Your task to perform on an android device: see tabs open on other devices in the chrome app Image 0: 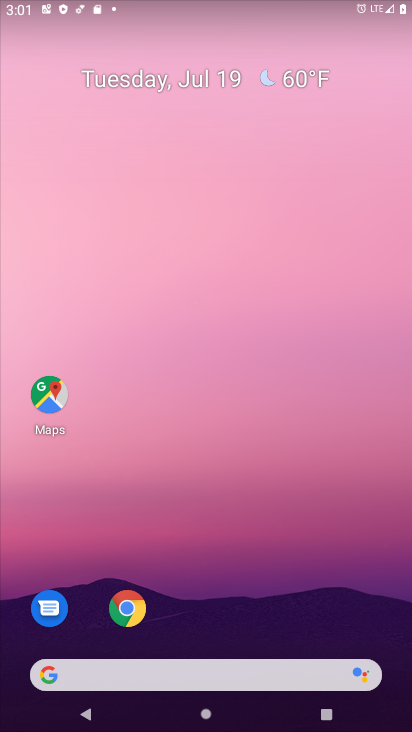
Step 0: drag from (300, 654) to (167, 111)
Your task to perform on an android device: see tabs open on other devices in the chrome app Image 1: 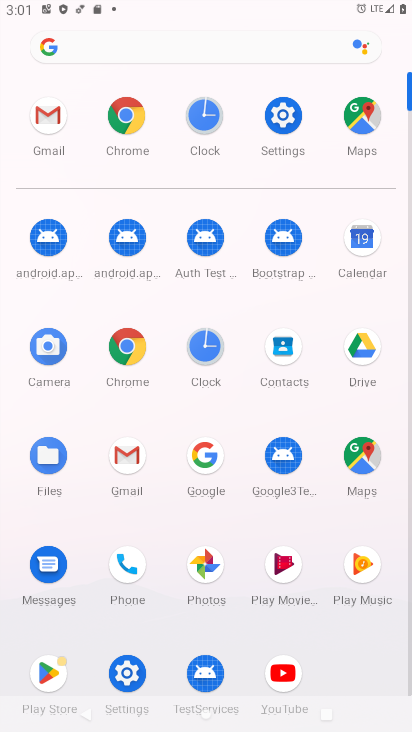
Step 1: click (119, 124)
Your task to perform on an android device: see tabs open on other devices in the chrome app Image 2: 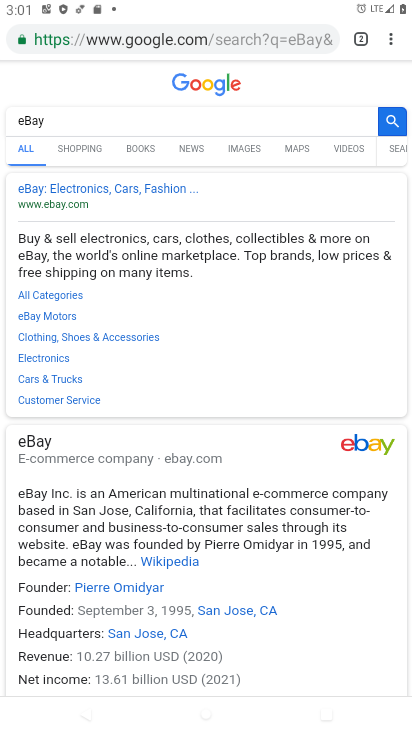
Step 2: task complete